Your task to perform on an android device: turn on data saver in the chrome app Image 0: 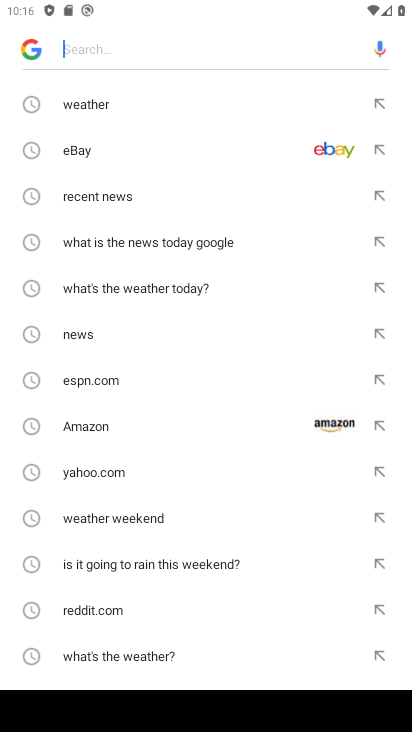
Step 0: press back button
Your task to perform on an android device: turn on data saver in the chrome app Image 1: 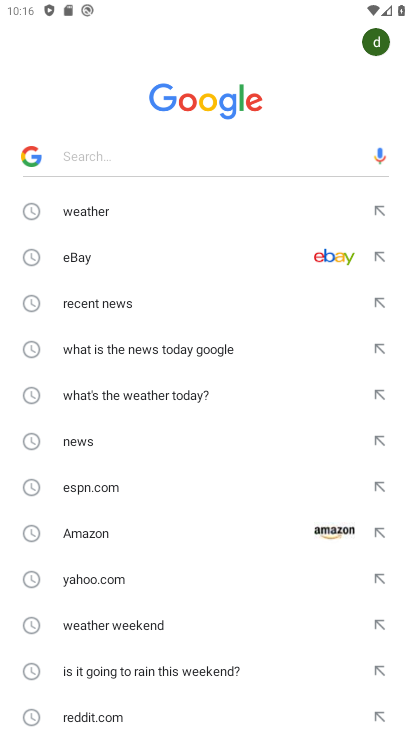
Step 1: press home button
Your task to perform on an android device: turn on data saver in the chrome app Image 2: 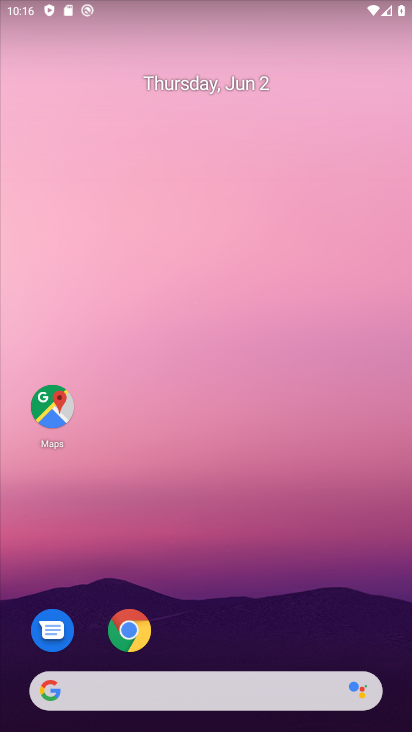
Step 2: drag from (223, 681) to (10, 50)
Your task to perform on an android device: turn on data saver in the chrome app Image 3: 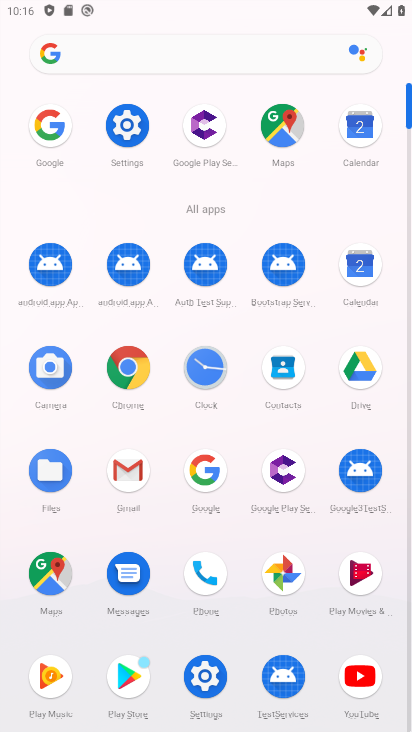
Step 3: click (133, 359)
Your task to perform on an android device: turn on data saver in the chrome app Image 4: 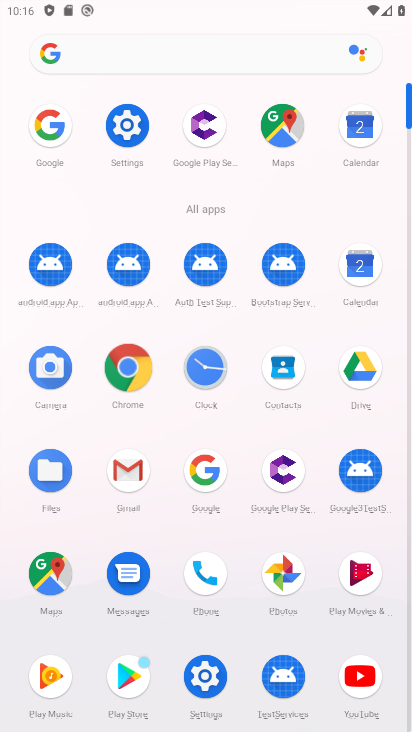
Step 4: click (133, 359)
Your task to perform on an android device: turn on data saver in the chrome app Image 5: 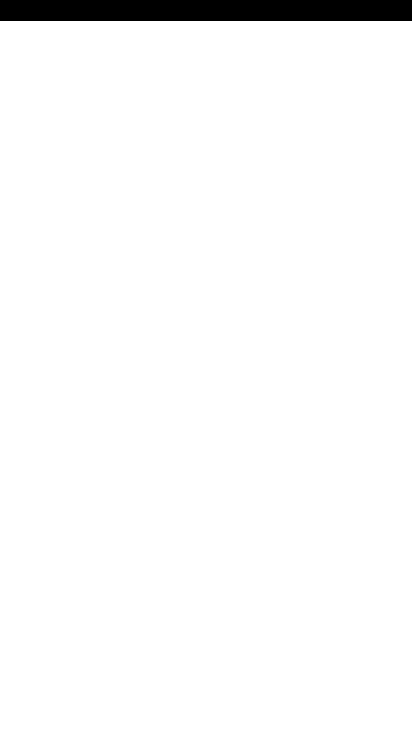
Step 5: click (132, 357)
Your task to perform on an android device: turn on data saver in the chrome app Image 6: 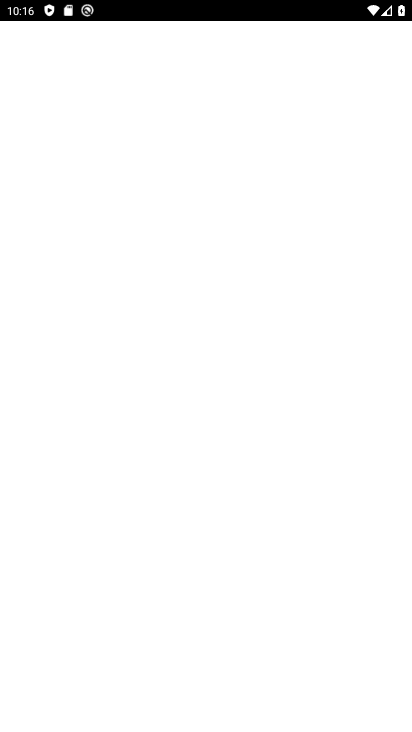
Step 6: click (133, 356)
Your task to perform on an android device: turn on data saver in the chrome app Image 7: 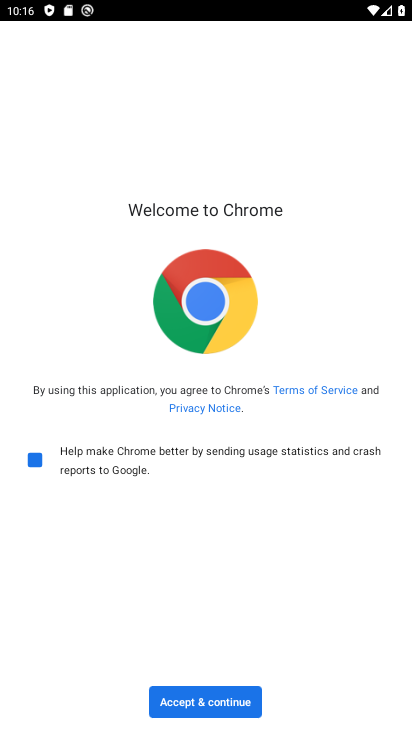
Step 7: click (129, 351)
Your task to perform on an android device: turn on data saver in the chrome app Image 8: 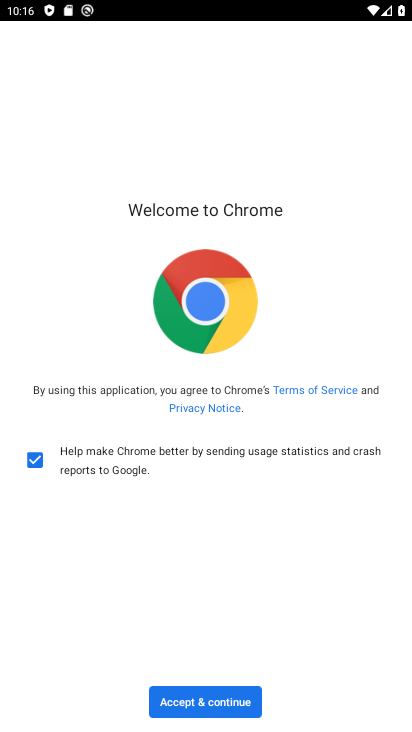
Step 8: click (216, 699)
Your task to perform on an android device: turn on data saver in the chrome app Image 9: 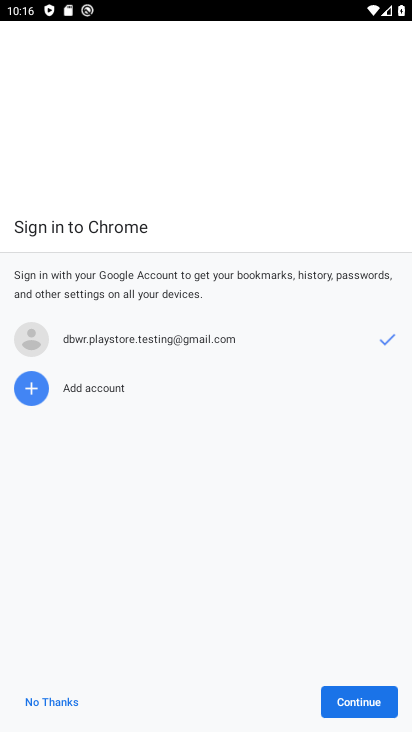
Step 9: click (361, 697)
Your task to perform on an android device: turn on data saver in the chrome app Image 10: 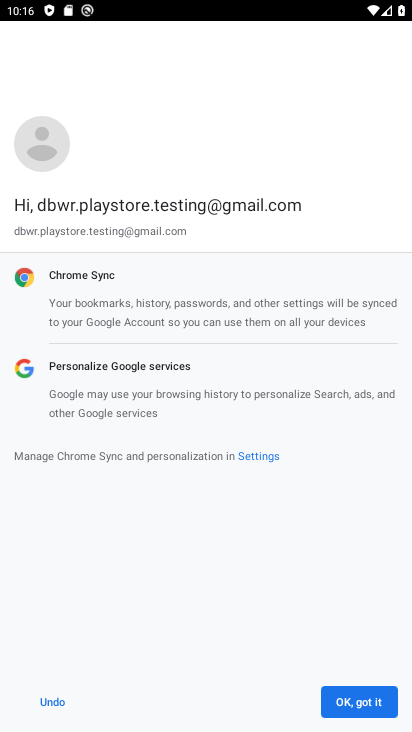
Step 10: click (365, 691)
Your task to perform on an android device: turn on data saver in the chrome app Image 11: 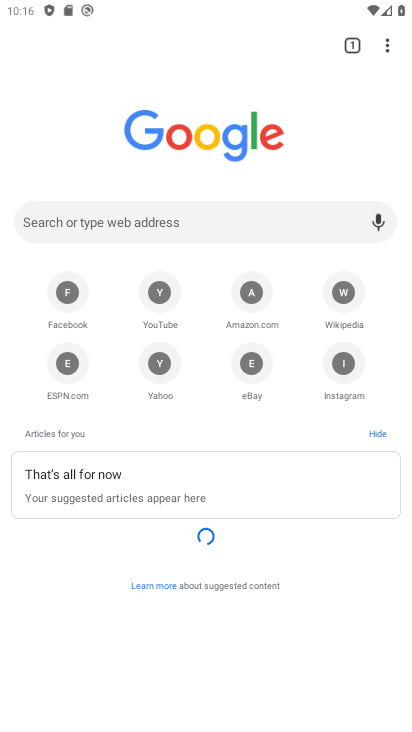
Step 11: drag from (388, 49) to (228, 378)
Your task to perform on an android device: turn on data saver in the chrome app Image 12: 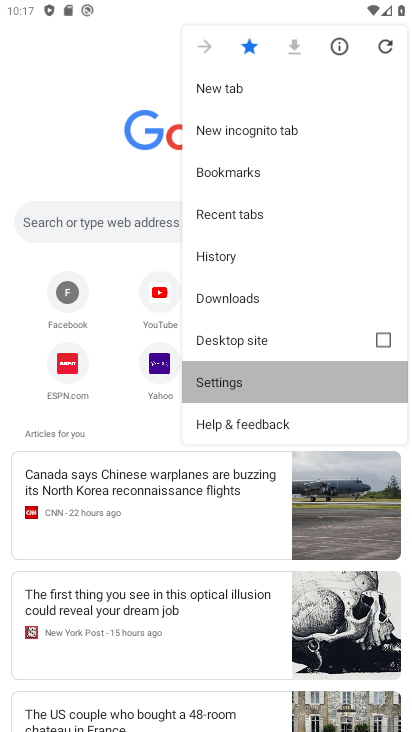
Step 12: click (228, 378)
Your task to perform on an android device: turn on data saver in the chrome app Image 13: 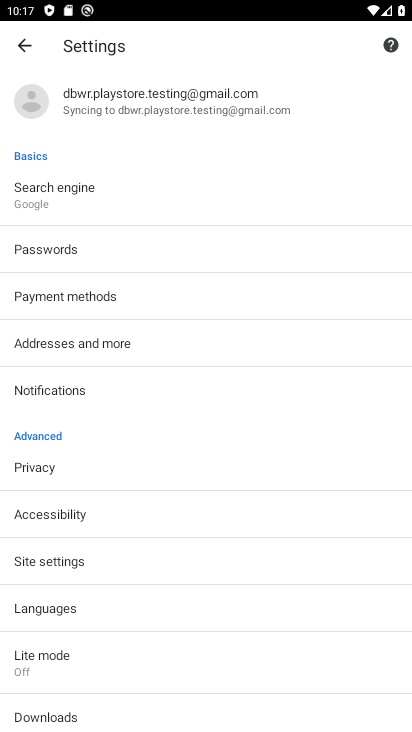
Step 13: click (31, 654)
Your task to perform on an android device: turn on data saver in the chrome app Image 14: 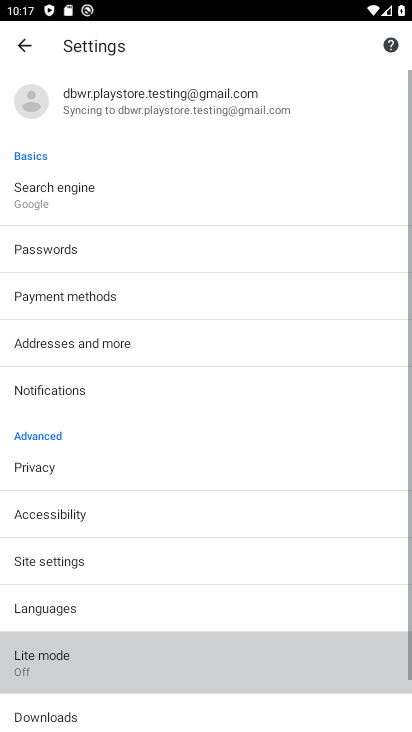
Step 14: click (29, 653)
Your task to perform on an android device: turn on data saver in the chrome app Image 15: 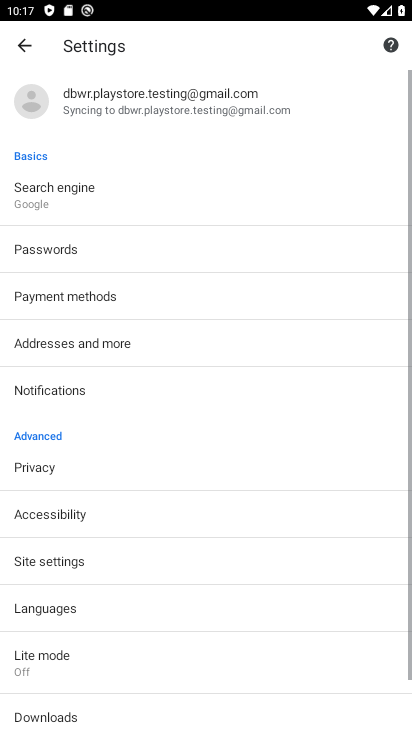
Step 15: click (29, 653)
Your task to perform on an android device: turn on data saver in the chrome app Image 16: 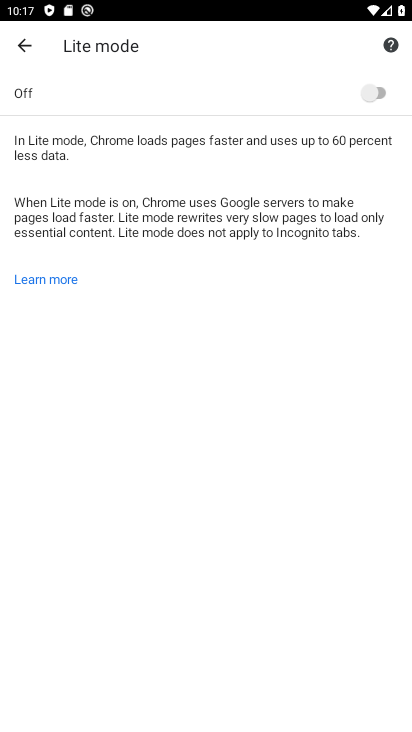
Step 16: click (29, 653)
Your task to perform on an android device: turn on data saver in the chrome app Image 17: 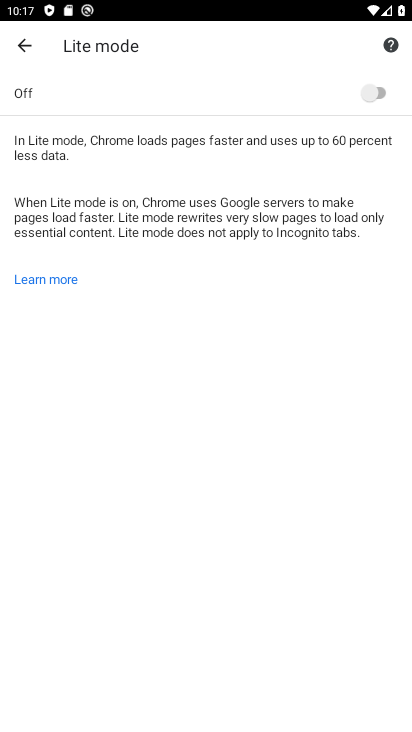
Step 17: click (374, 81)
Your task to perform on an android device: turn on data saver in the chrome app Image 18: 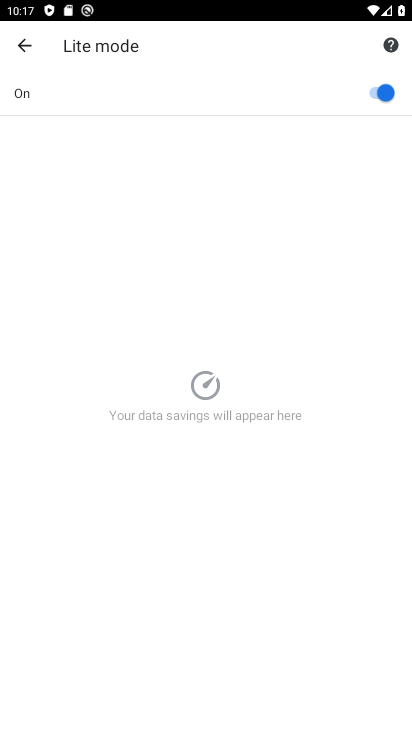
Step 18: task complete